Your task to perform on an android device: When is my next appointment? Image 0: 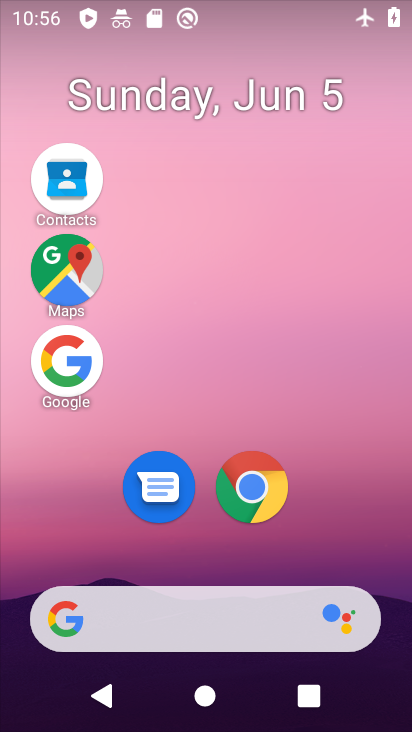
Step 0: drag from (204, 658) to (235, 281)
Your task to perform on an android device: When is my next appointment? Image 1: 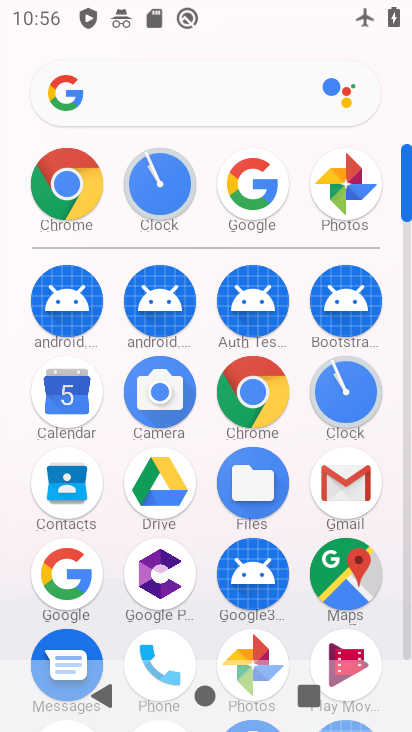
Step 1: drag from (231, 505) to (238, 230)
Your task to perform on an android device: When is my next appointment? Image 2: 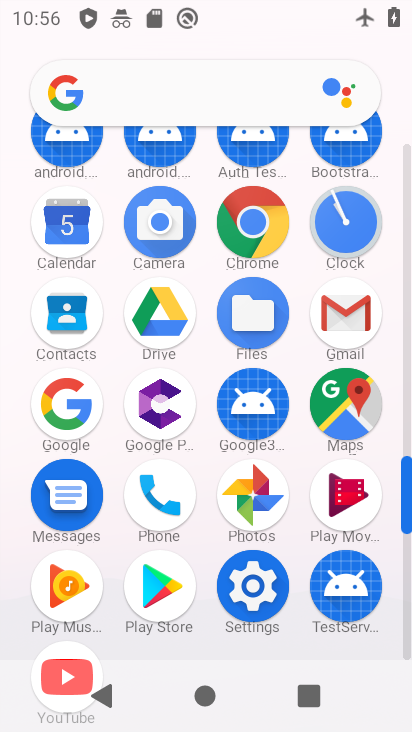
Step 2: click (81, 231)
Your task to perform on an android device: When is my next appointment? Image 3: 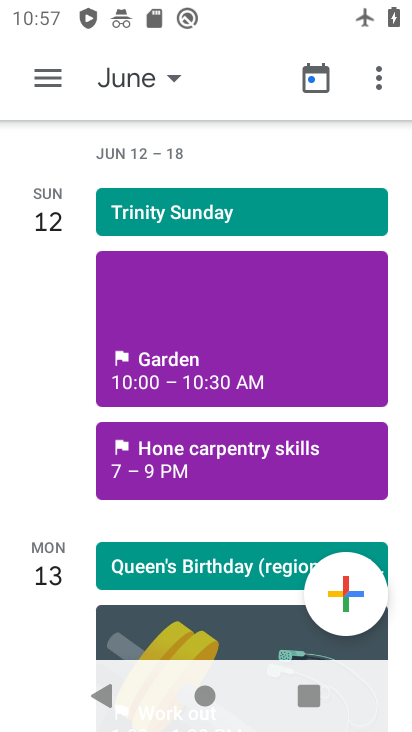
Step 3: click (61, 80)
Your task to perform on an android device: When is my next appointment? Image 4: 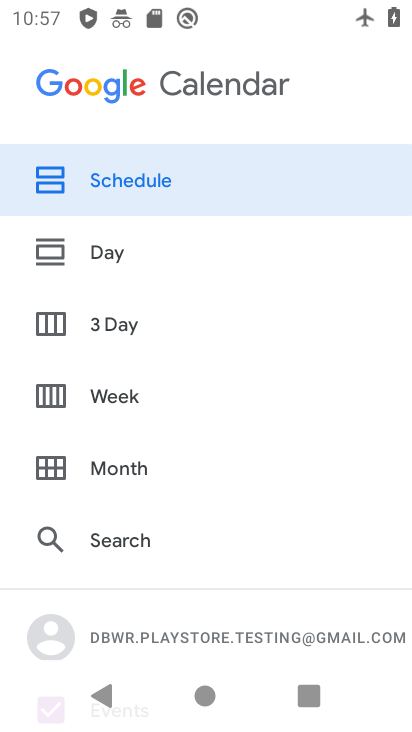
Step 4: drag from (206, 548) to (223, 74)
Your task to perform on an android device: When is my next appointment? Image 5: 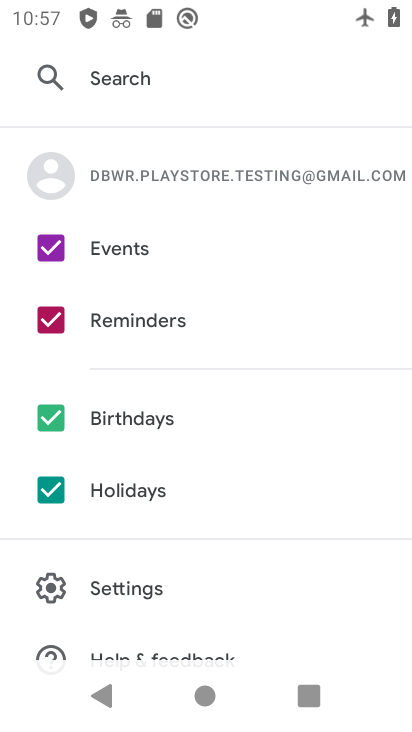
Step 5: click (67, 493)
Your task to perform on an android device: When is my next appointment? Image 6: 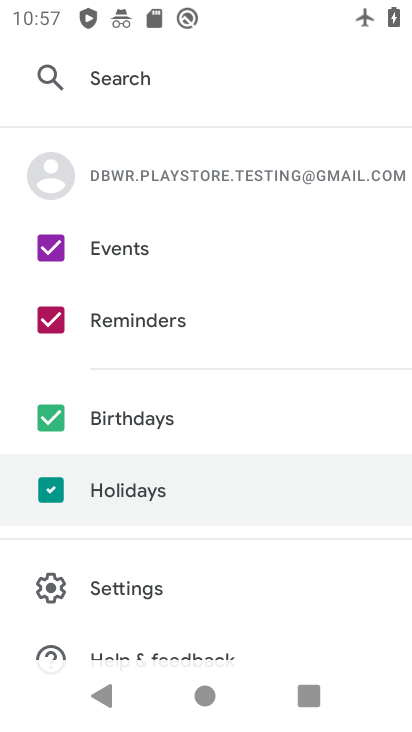
Step 6: click (89, 396)
Your task to perform on an android device: When is my next appointment? Image 7: 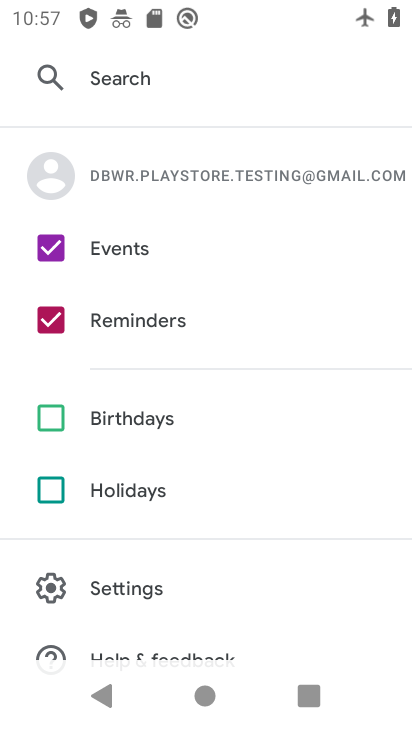
Step 7: task complete